Your task to perform on an android device: turn on sleep mode Image 0: 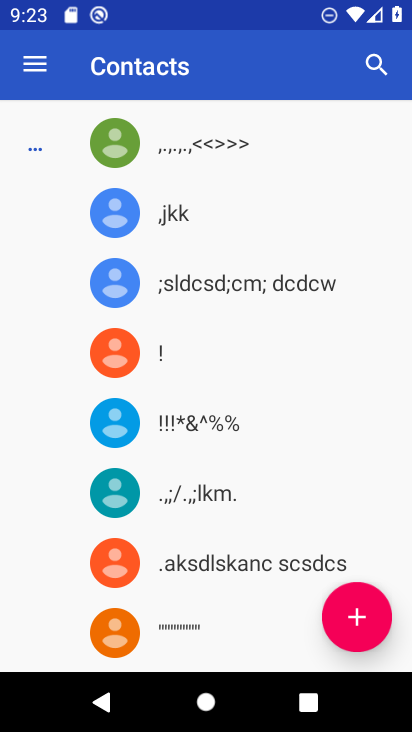
Step 0: press home button
Your task to perform on an android device: turn on sleep mode Image 1: 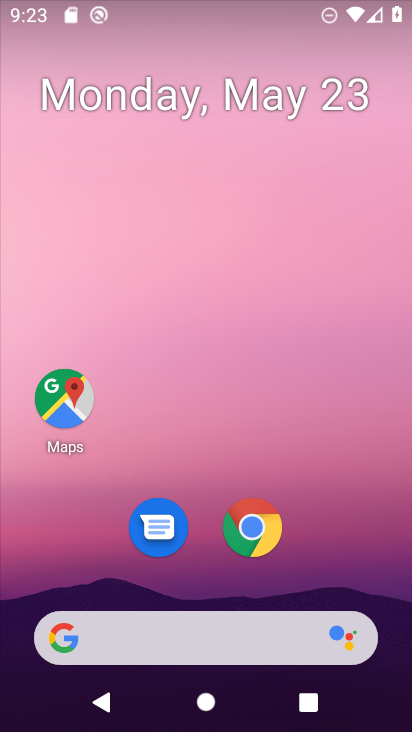
Step 1: drag from (234, 418) to (219, 47)
Your task to perform on an android device: turn on sleep mode Image 2: 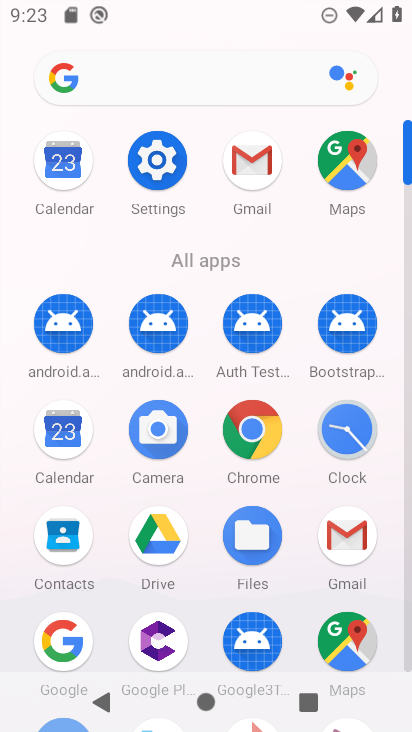
Step 2: click (157, 140)
Your task to perform on an android device: turn on sleep mode Image 3: 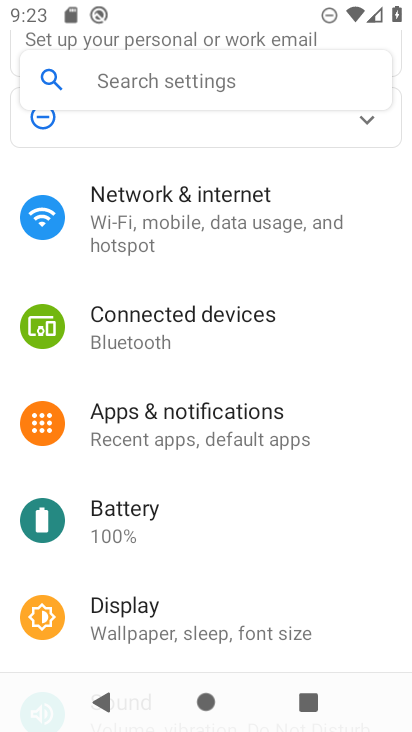
Step 3: click (186, 623)
Your task to perform on an android device: turn on sleep mode Image 4: 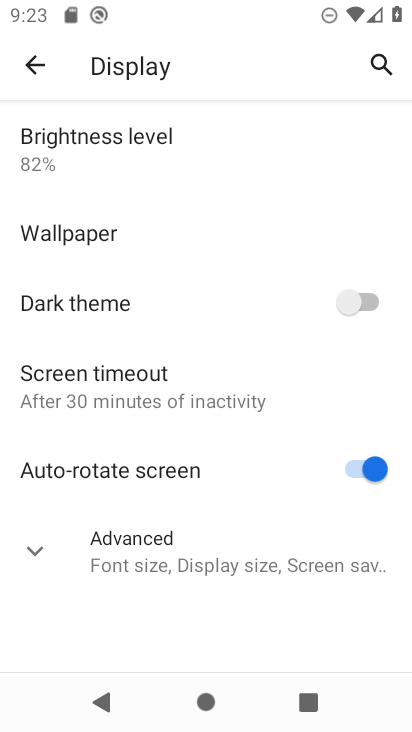
Step 4: click (38, 535)
Your task to perform on an android device: turn on sleep mode Image 5: 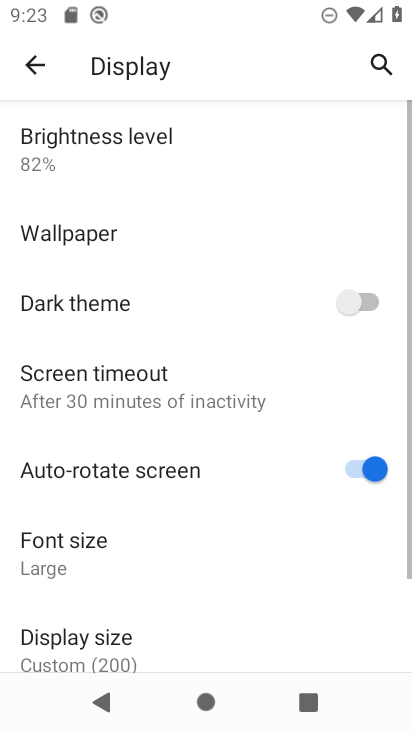
Step 5: task complete